Your task to perform on an android device: open app "Pluto TV - Live TV and Movies" (install if not already installed) and enter user name: "wools@yahoo.com" and password: "misplacing" Image 0: 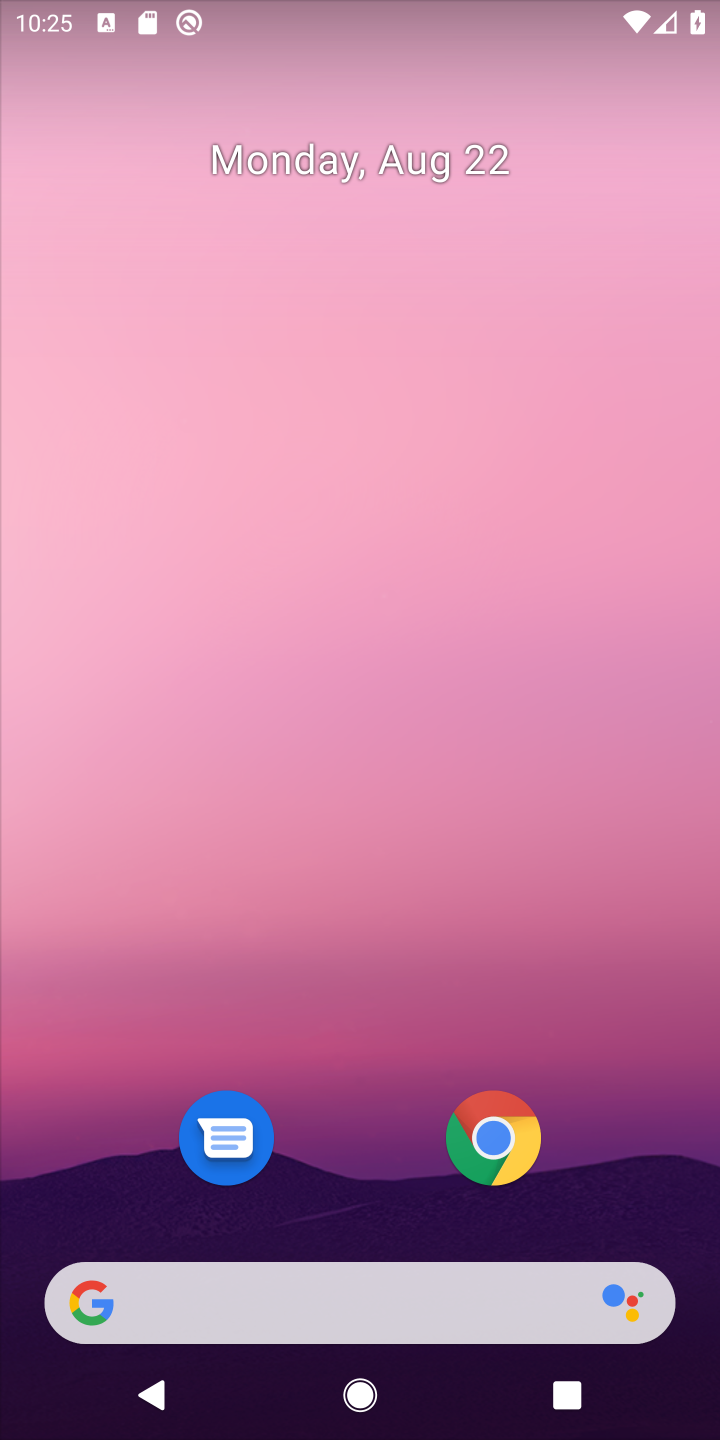
Step 0: drag from (367, 1228) to (367, 141)
Your task to perform on an android device: open app "Pluto TV - Live TV and Movies" (install if not already installed) and enter user name: "wools@yahoo.com" and password: "misplacing" Image 1: 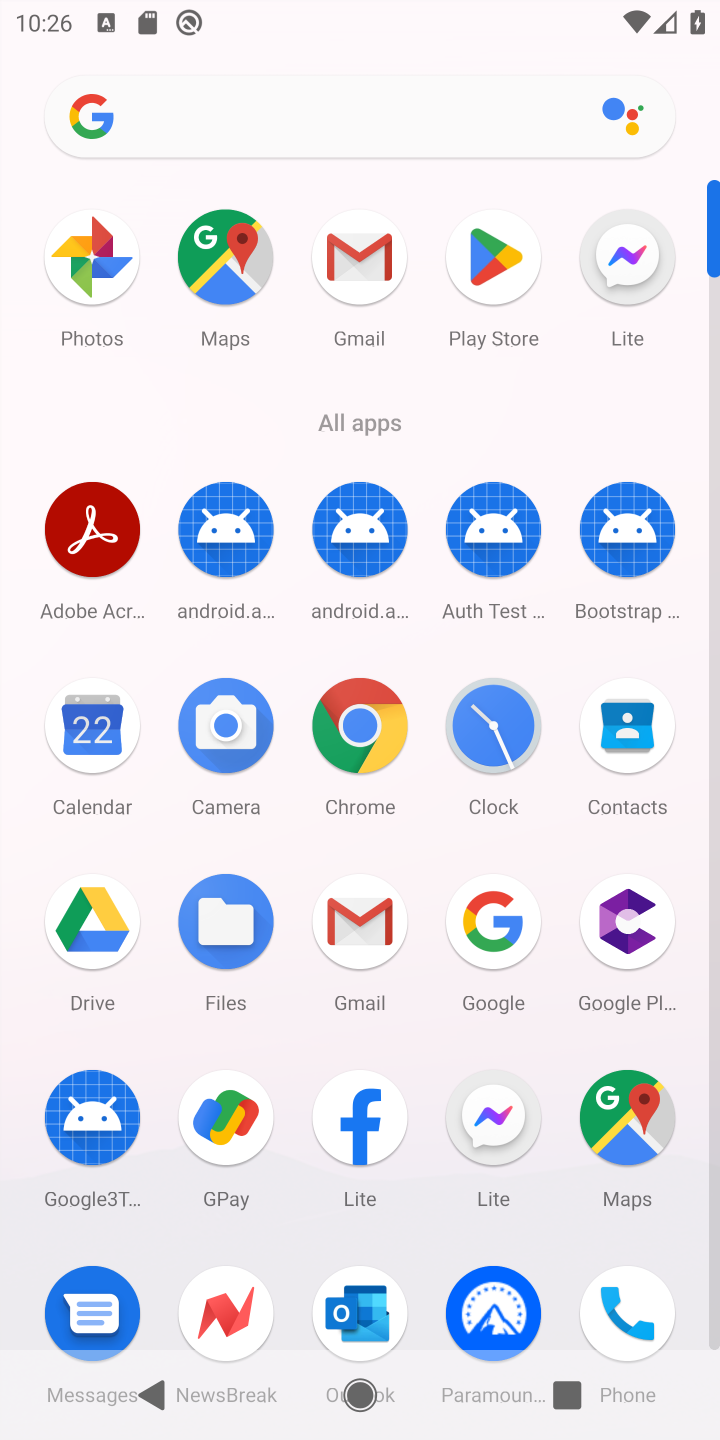
Step 1: click (489, 242)
Your task to perform on an android device: open app "Pluto TV - Live TV and Movies" (install if not already installed) and enter user name: "wools@yahoo.com" and password: "misplacing" Image 2: 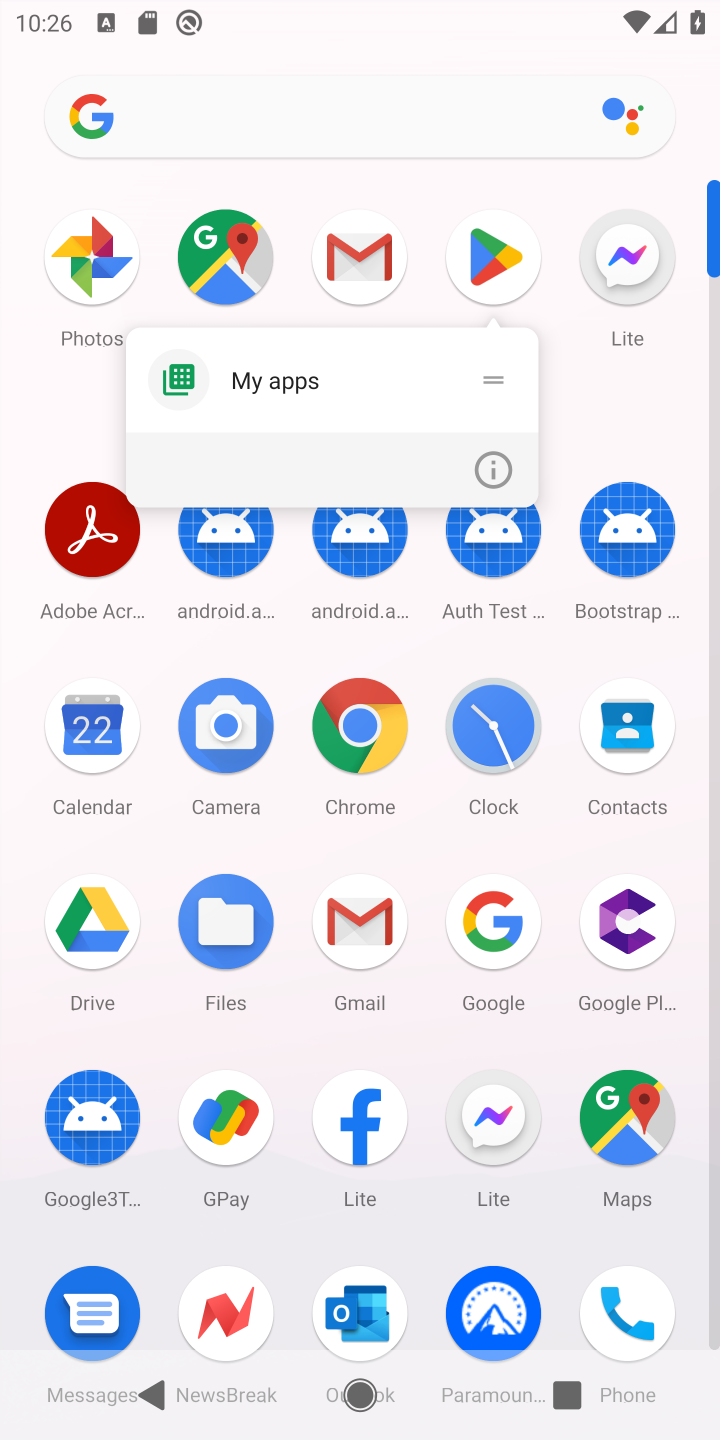
Step 2: click (488, 244)
Your task to perform on an android device: open app "Pluto TV - Live TV and Movies" (install if not already installed) and enter user name: "wools@yahoo.com" and password: "misplacing" Image 3: 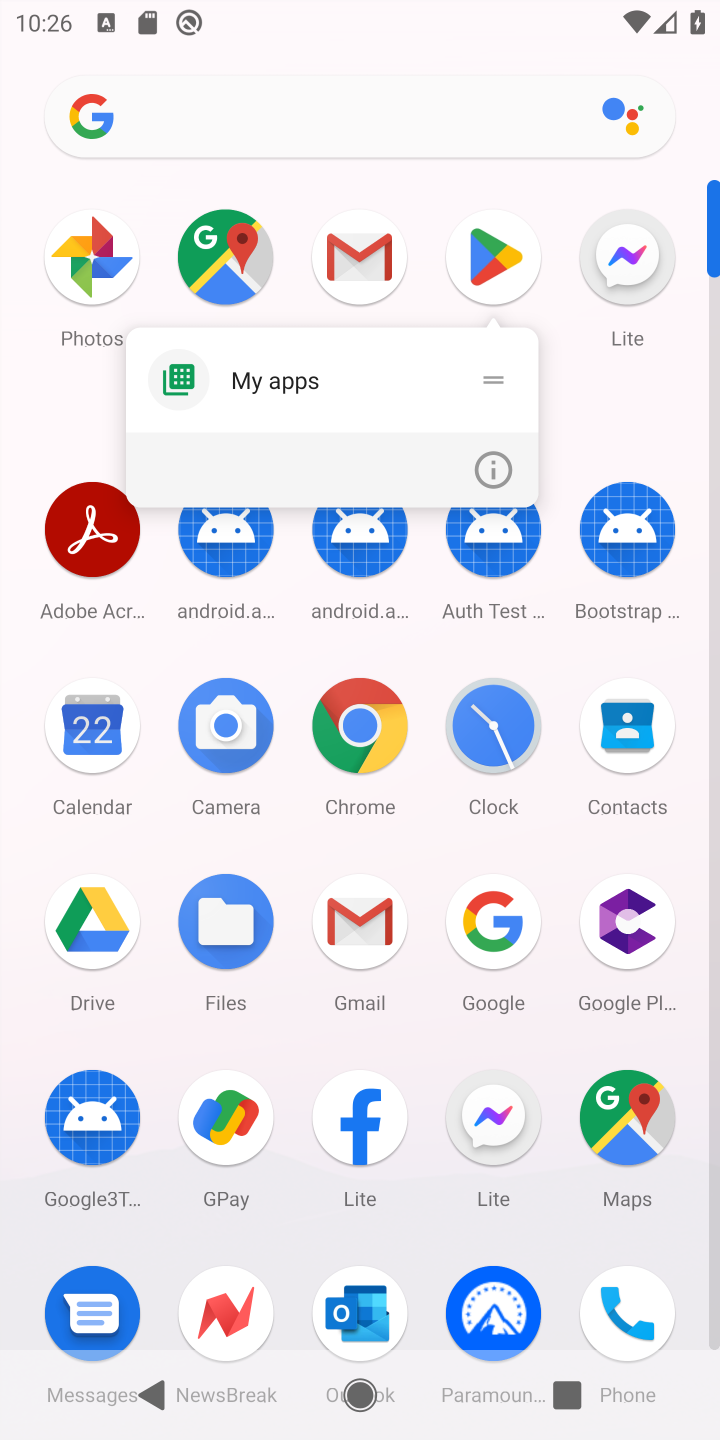
Step 3: click (490, 245)
Your task to perform on an android device: open app "Pluto TV - Live TV and Movies" (install if not already installed) and enter user name: "wools@yahoo.com" and password: "misplacing" Image 4: 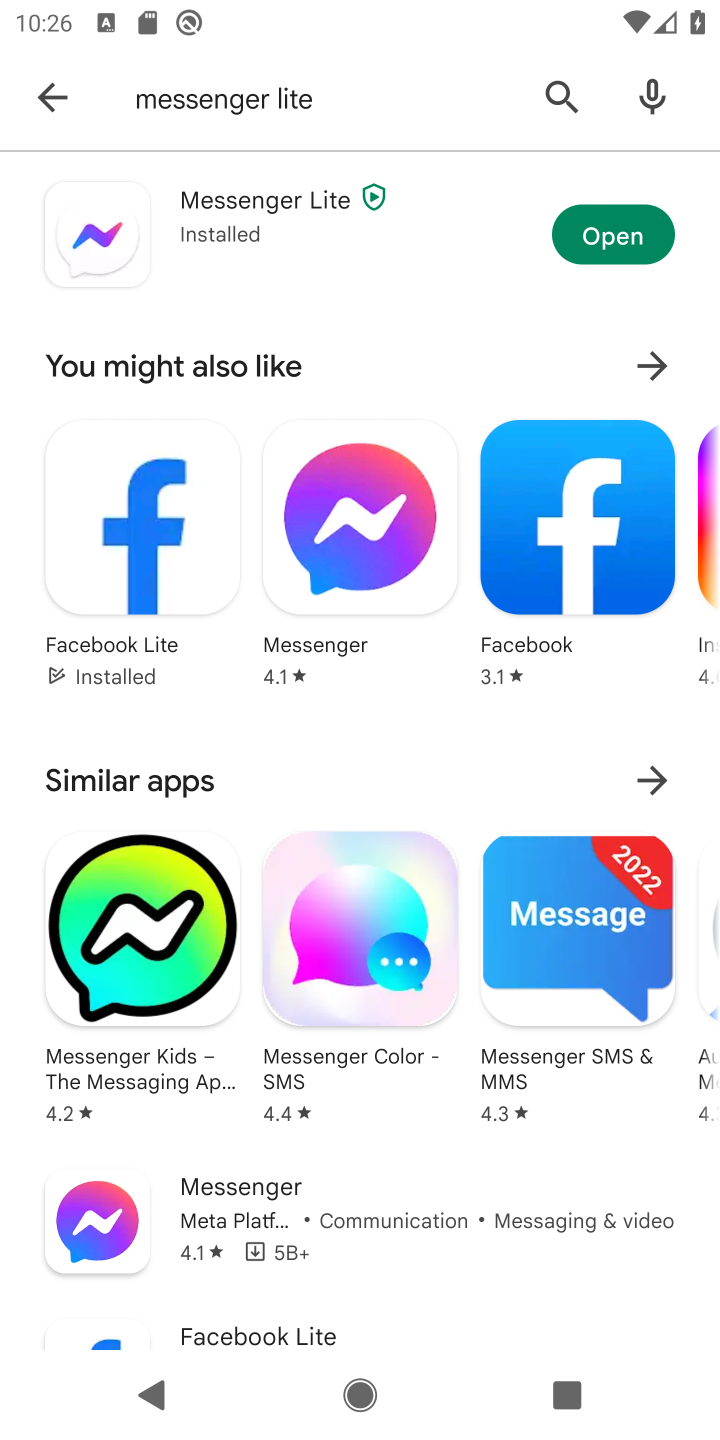
Step 4: click (562, 96)
Your task to perform on an android device: open app "Pluto TV - Live TV and Movies" (install if not already installed) and enter user name: "wools@yahoo.com" and password: "misplacing" Image 5: 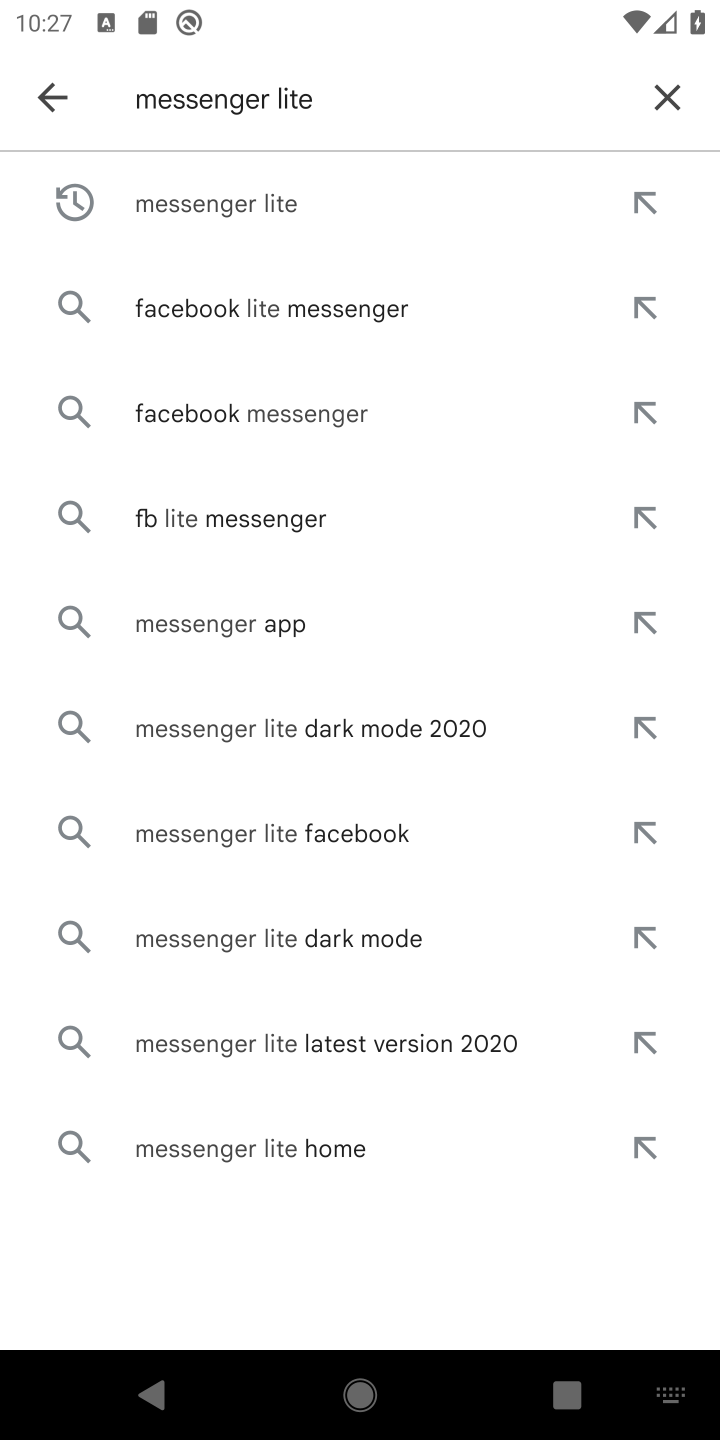
Step 5: click (673, 97)
Your task to perform on an android device: open app "Pluto TV - Live TV and Movies" (install if not already installed) and enter user name: "wools@yahoo.com" and password: "misplacing" Image 6: 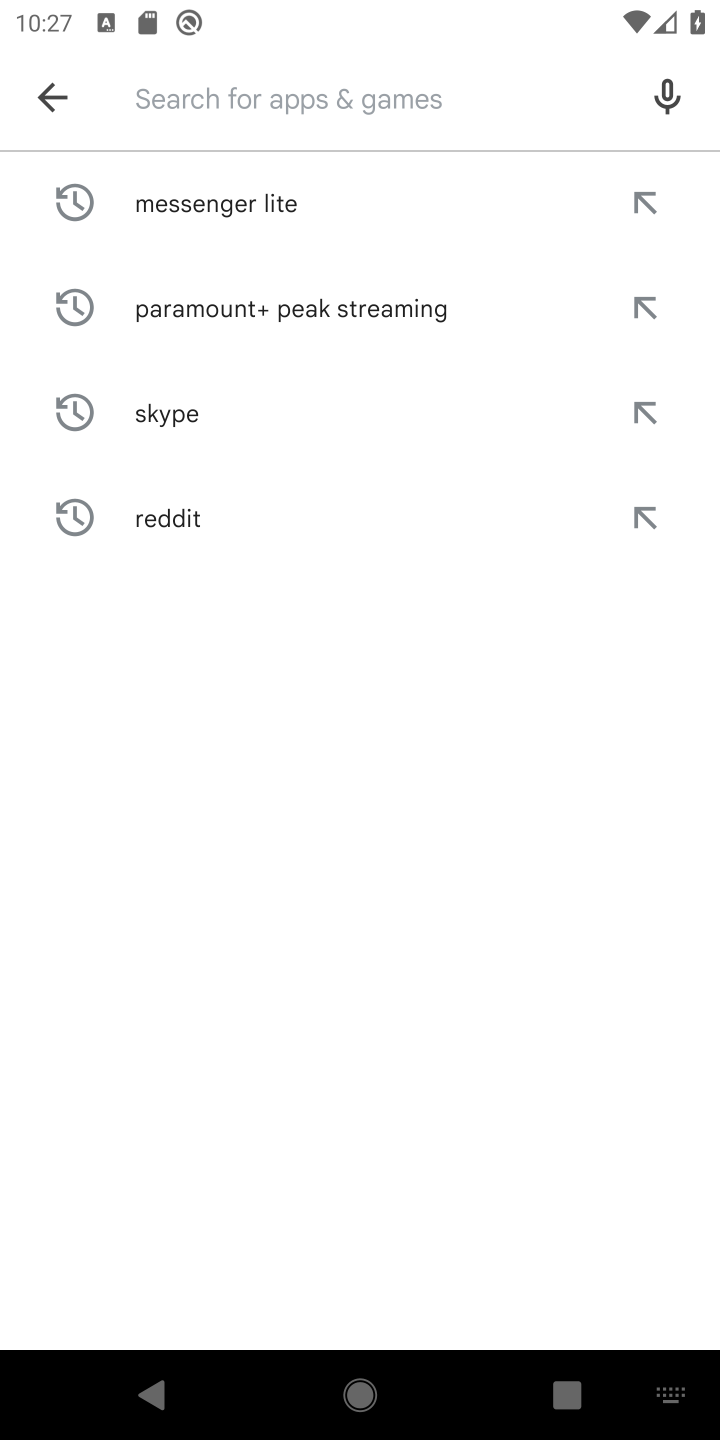
Step 6: type "Pluto TV - Live TV and Movies"
Your task to perform on an android device: open app "Pluto TV - Live TV and Movies" (install if not already installed) and enter user name: "wools@yahoo.com" and password: "misplacing" Image 7: 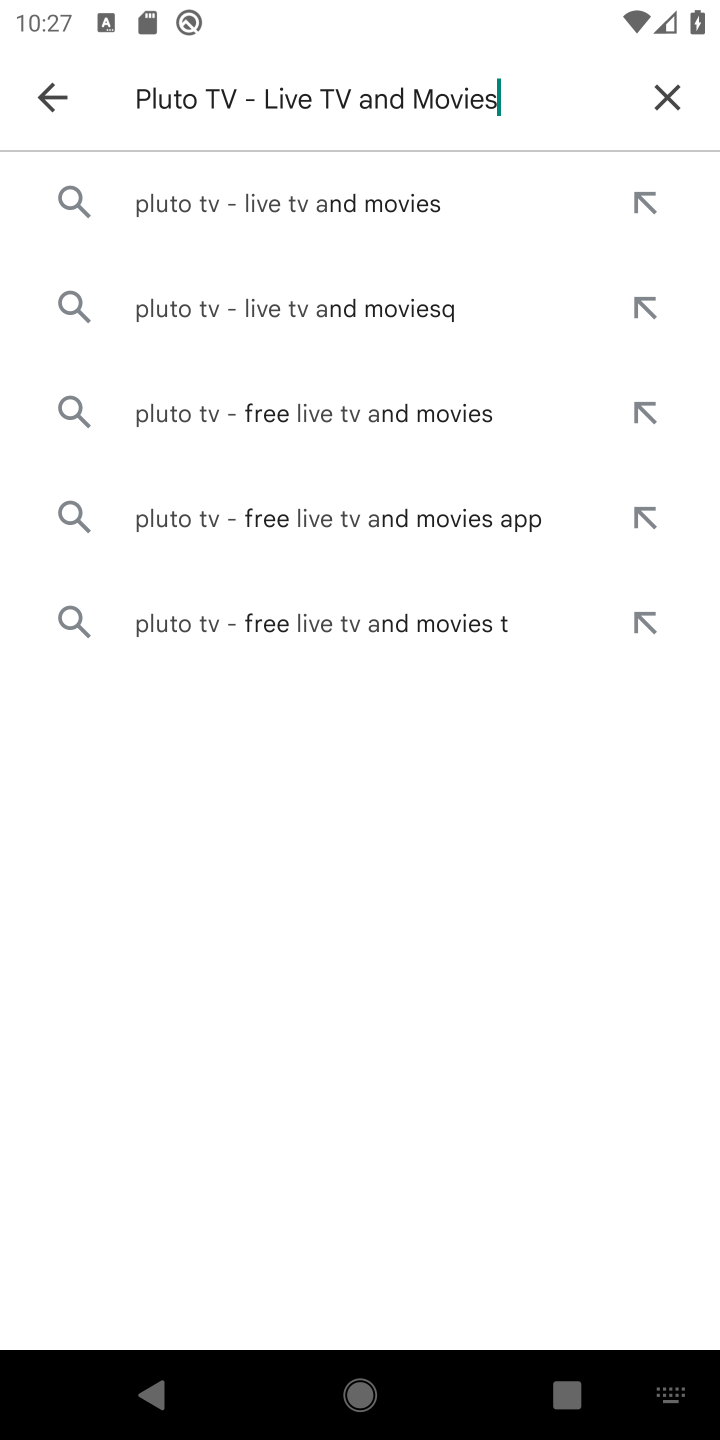
Step 7: type ""
Your task to perform on an android device: open app "Pluto TV - Live TV and Movies" (install if not already installed) and enter user name: "wools@yahoo.com" and password: "misplacing" Image 8: 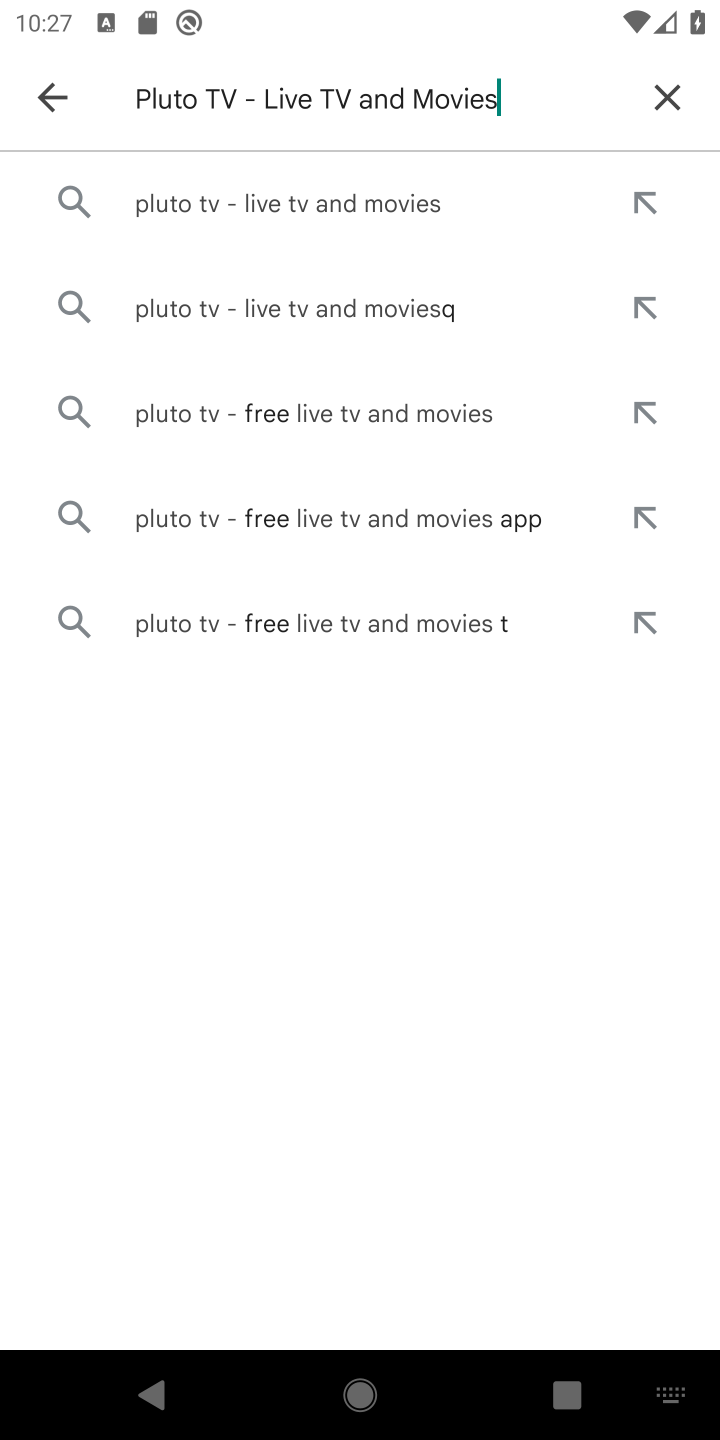
Step 8: click (270, 196)
Your task to perform on an android device: open app "Pluto TV - Live TV and Movies" (install if not already installed) and enter user name: "wools@yahoo.com" and password: "misplacing" Image 9: 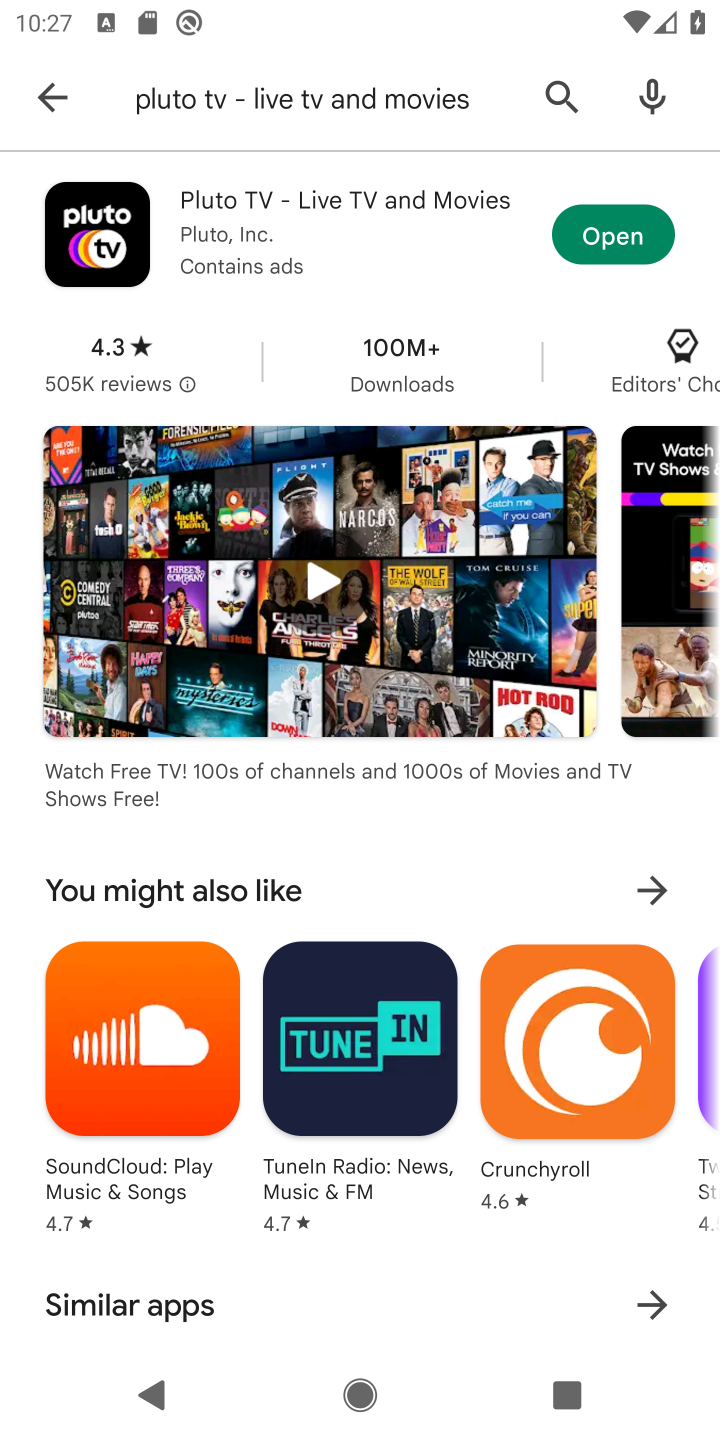
Step 9: click (615, 221)
Your task to perform on an android device: open app "Pluto TV - Live TV and Movies" (install if not already installed) and enter user name: "wools@yahoo.com" and password: "misplacing" Image 10: 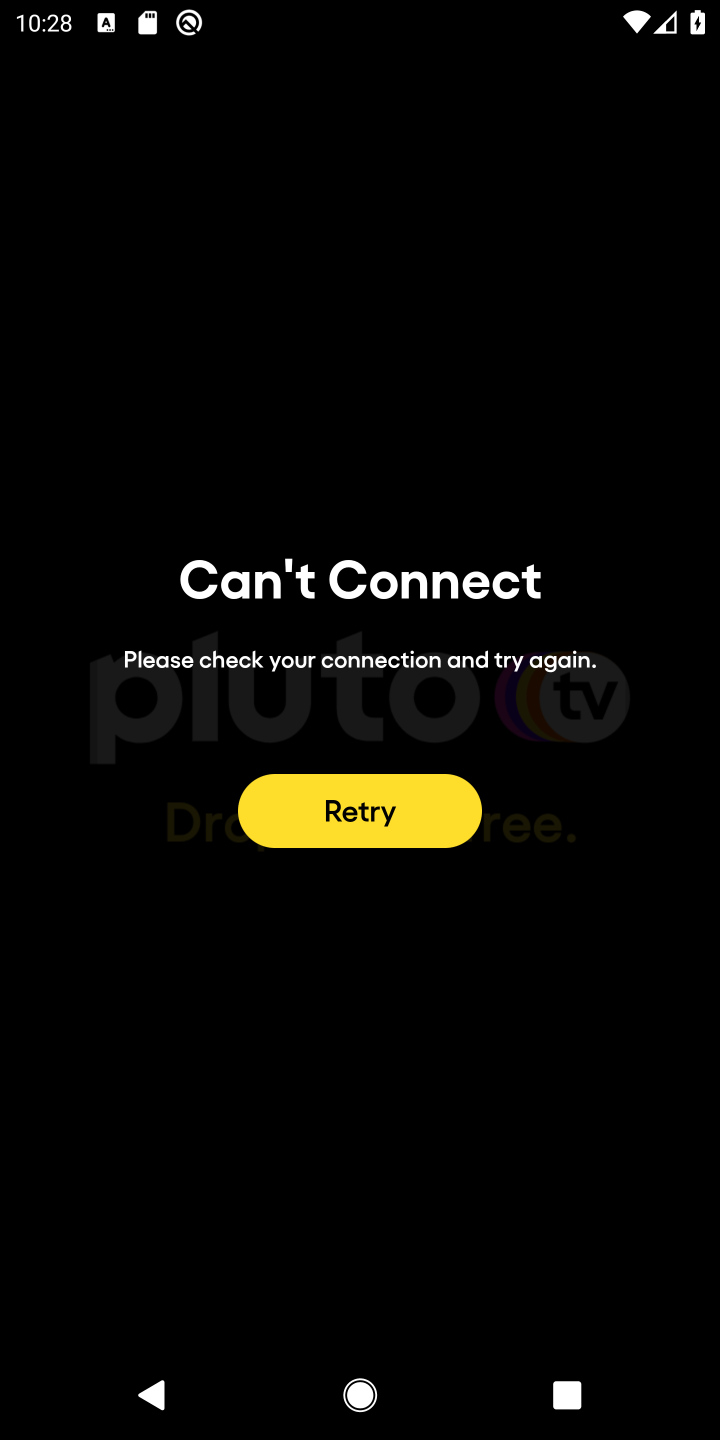
Step 10: task complete